Your task to perform on an android device: Go to Yahoo.com Image 0: 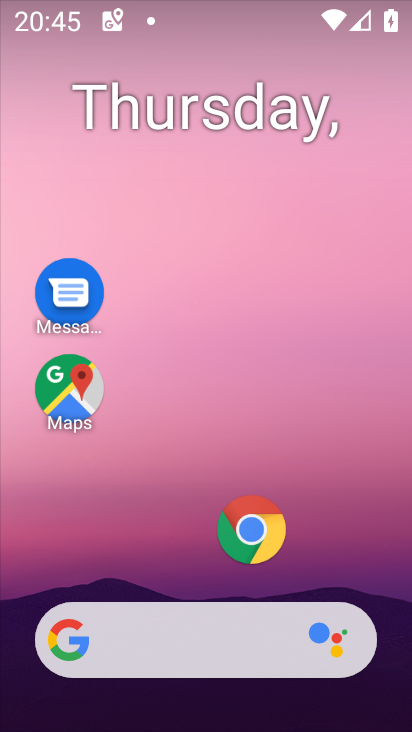
Step 0: click (270, 525)
Your task to perform on an android device: Go to Yahoo.com Image 1: 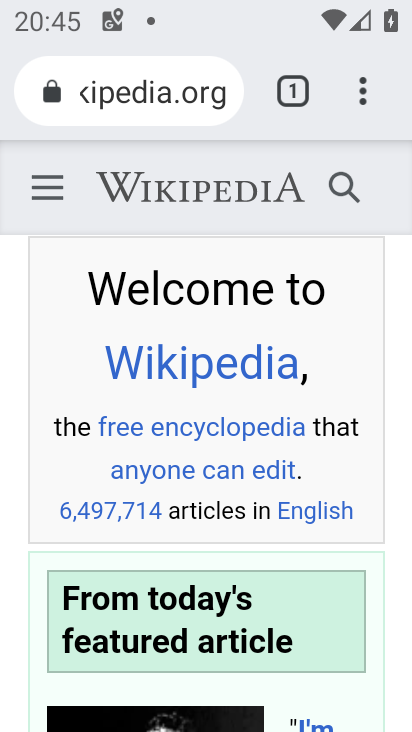
Step 1: click (291, 91)
Your task to perform on an android device: Go to Yahoo.com Image 2: 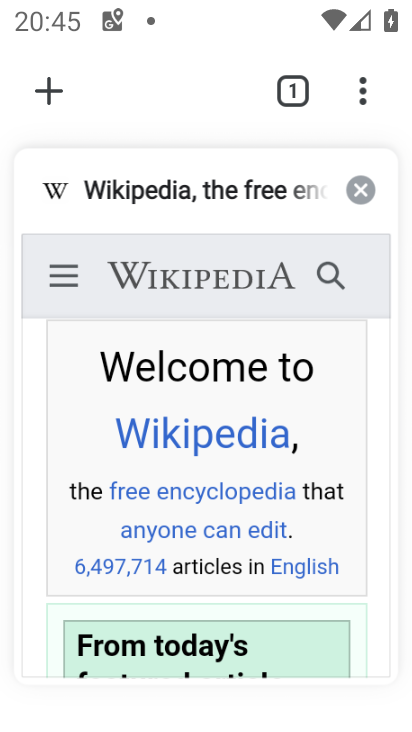
Step 2: click (56, 76)
Your task to perform on an android device: Go to Yahoo.com Image 3: 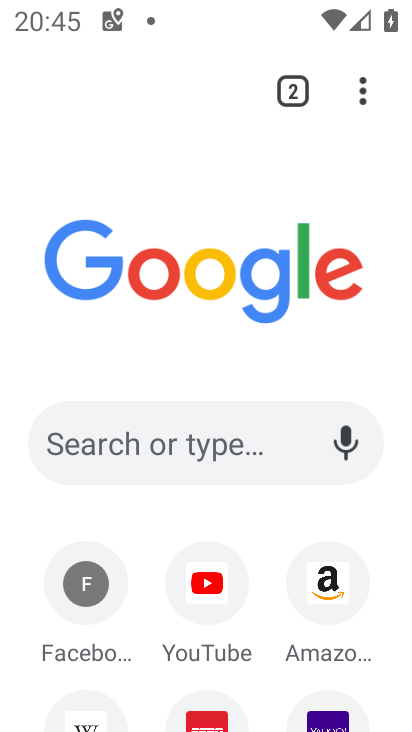
Step 3: click (323, 708)
Your task to perform on an android device: Go to Yahoo.com Image 4: 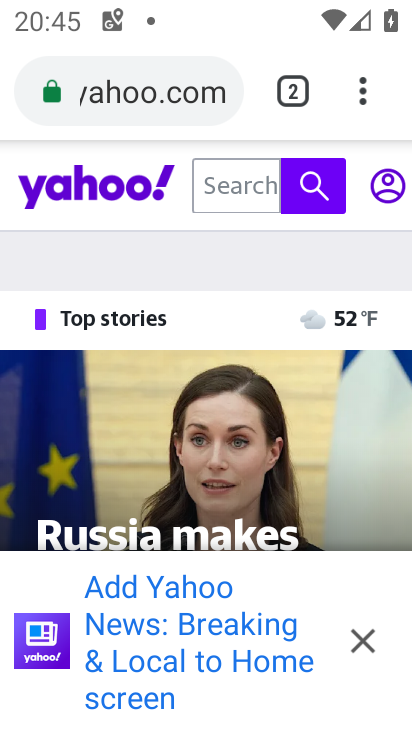
Step 4: task complete